Your task to perform on an android device: Open calendar and show me the third week of next month Image 0: 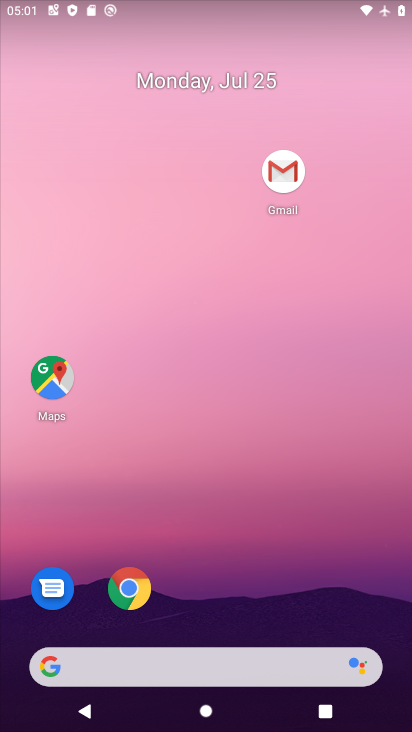
Step 0: drag from (308, 574) to (250, 33)
Your task to perform on an android device: Open calendar and show me the third week of next month Image 1: 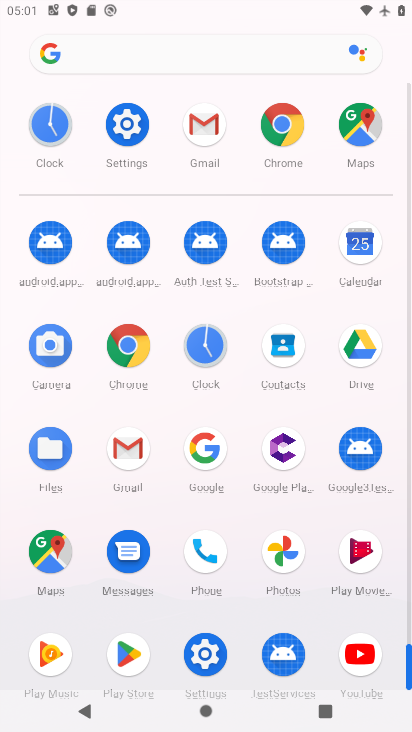
Step 1: click (361, 245)
Your task to perform on an android device: Open calendar and show me the third week of next month Image 2: 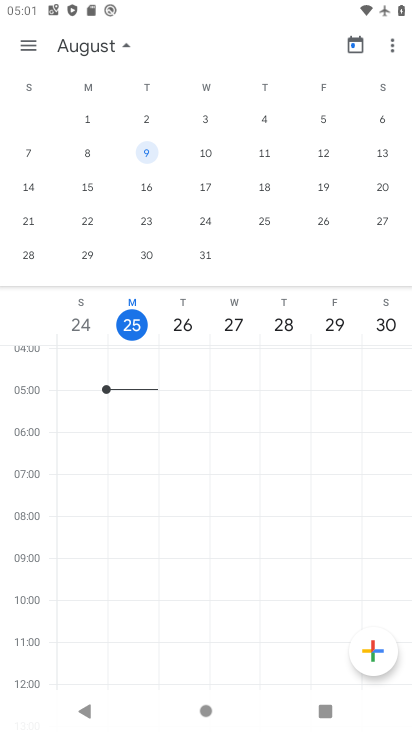
Step 2: click (101, 47)
Your task to perform on an android device: Open calendar and show me the third week of next month Image 3: 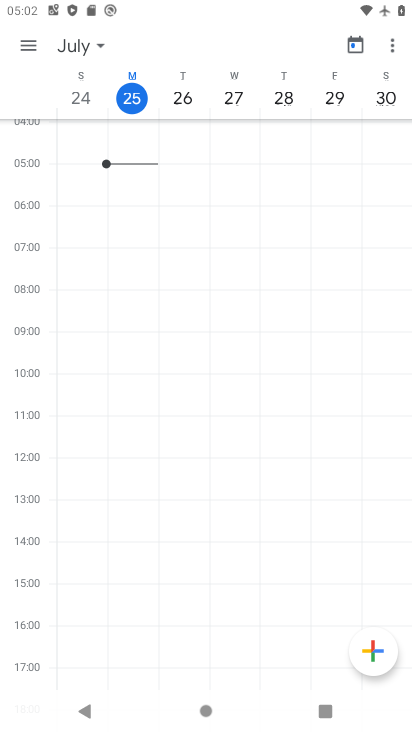
Step 3: click (90, 47)
Your task to perform on an android device: Open calendar and show me the third week of next month Image 4: 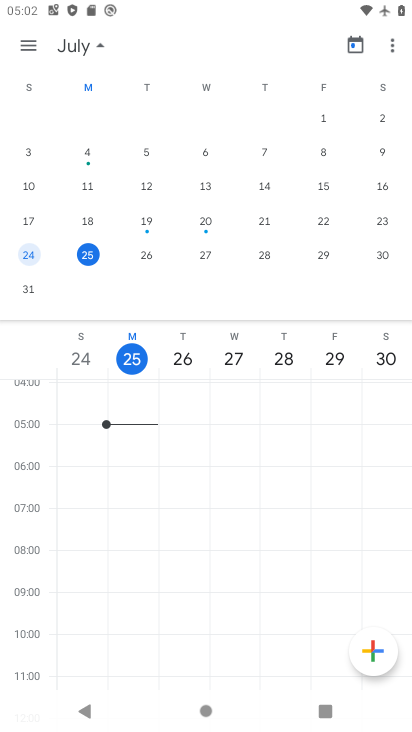
Step 4: drag from (354, 223) to (42, 202)
Your task to perform on an android device: Open calendar and show me the third week of next month Image 5: 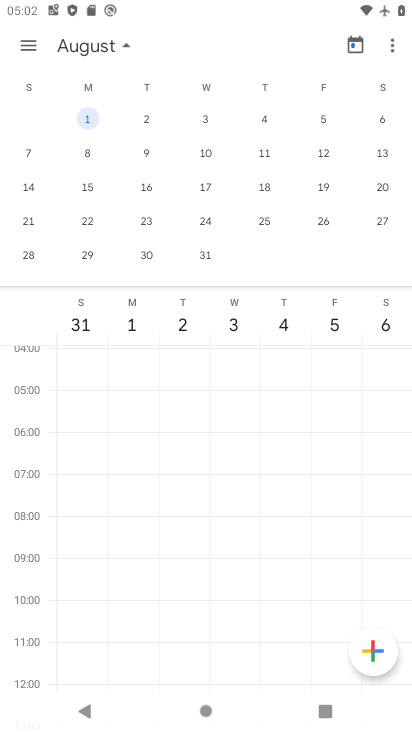
Step 5: click (148, 185)
Your task to perform on an android device: Open calendar and show me the third week of next month Image 6: 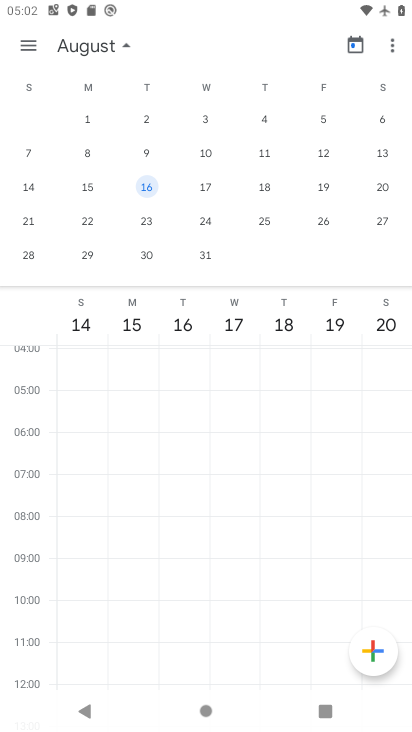
Step 6: task complete